Your task to perform on an android device: check data usage Image 0: 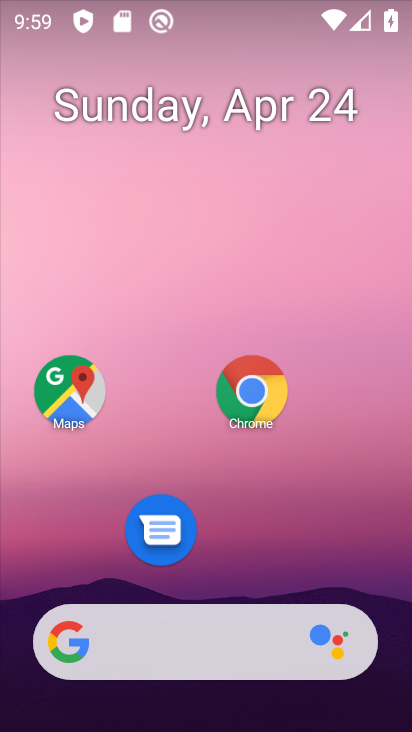
Step 0: drag from (251, 586) to (169, 126)
Your task to perform on an android device: check data usage Image 1: 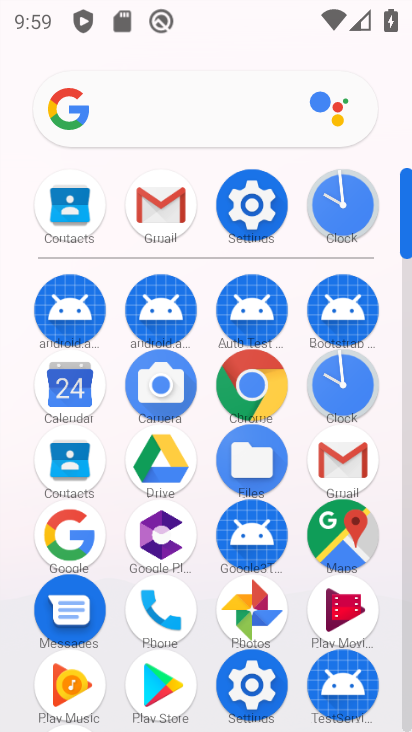
Step 1: click (269, 186)
Your task to perform on an android device: check data usage Image 2: 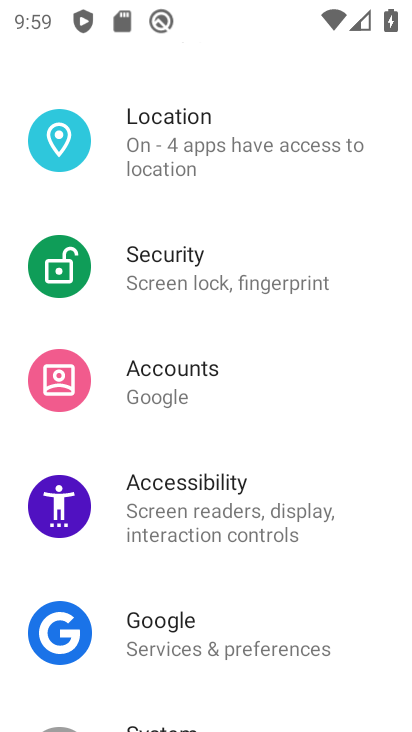
Step 2: drag from (146, 203) to (175, 713)
Your task to perform on an android device: check data usage Image 3: 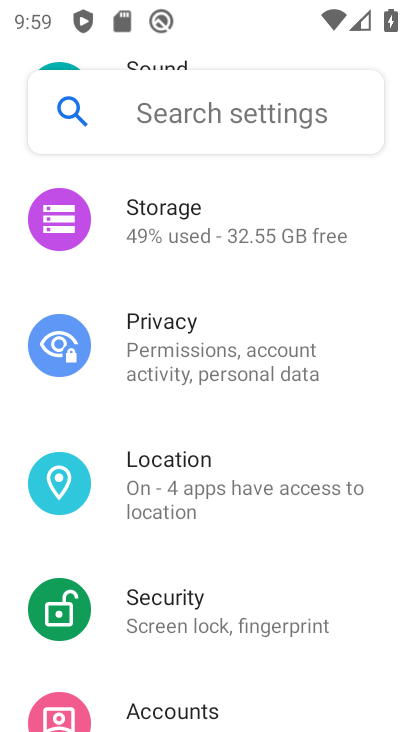
Step 3: drag from (149, 208) to (130, 691)
Your task to perform on an android device: check data usage Image 4: 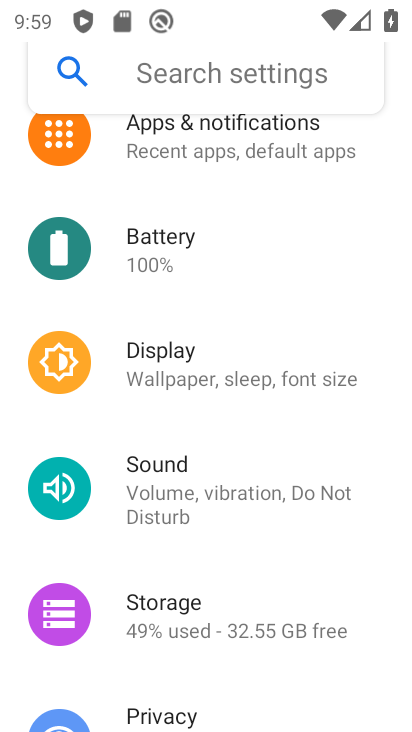
Step 4: drag from (142, 212) to (195, 673)
Your task to perform on an android device: check data usage Image 5: 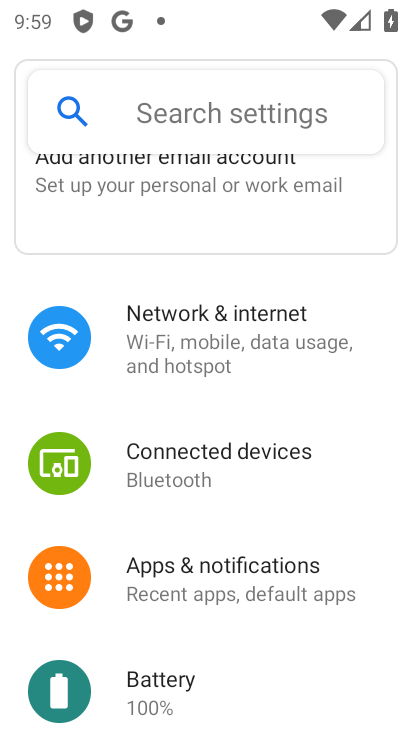
Step 5: click (218, 318)
Your task to perform on an android device: check data usage Image 6: 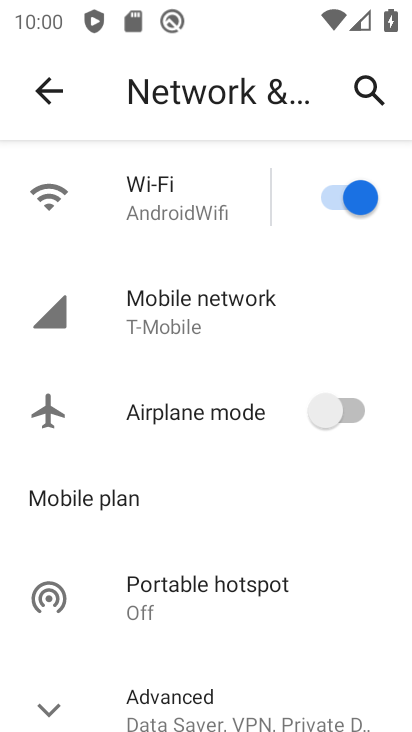
Step 6: click (245, 287)
Your task to perform on an android device: check data usage Image 7: 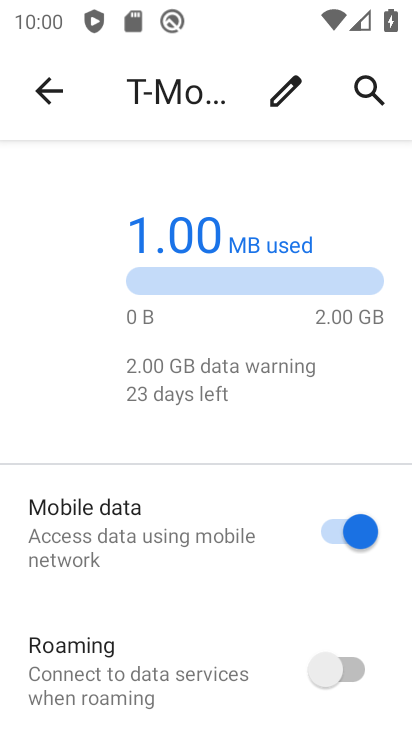
Step 7: task complete